Your task to perform on an android device: toggle javascript in the chrome app Image 0: 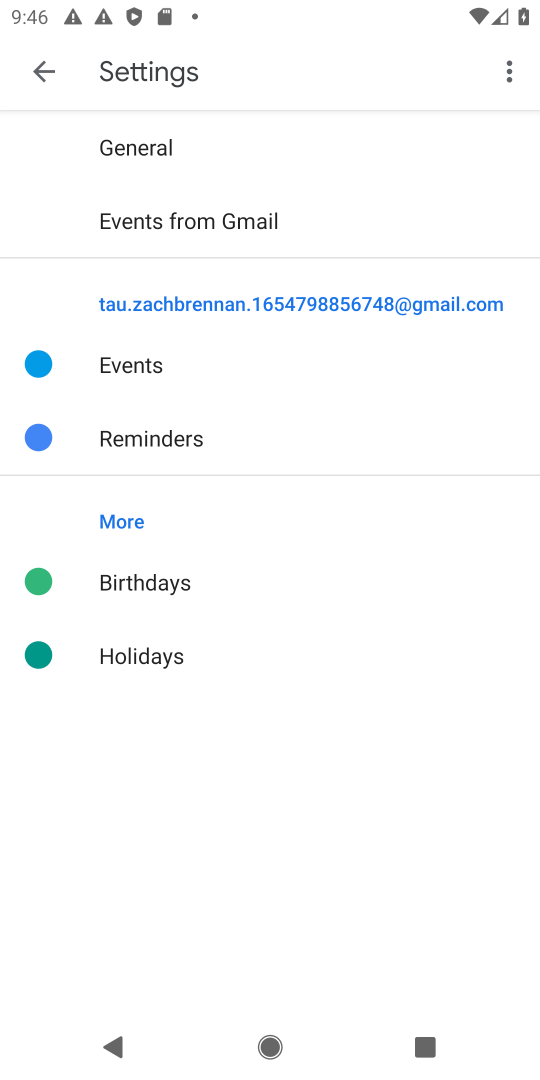
Step 0: press home button
Your task to perform on an android device: toggle javascript in the chrome app Image 1: 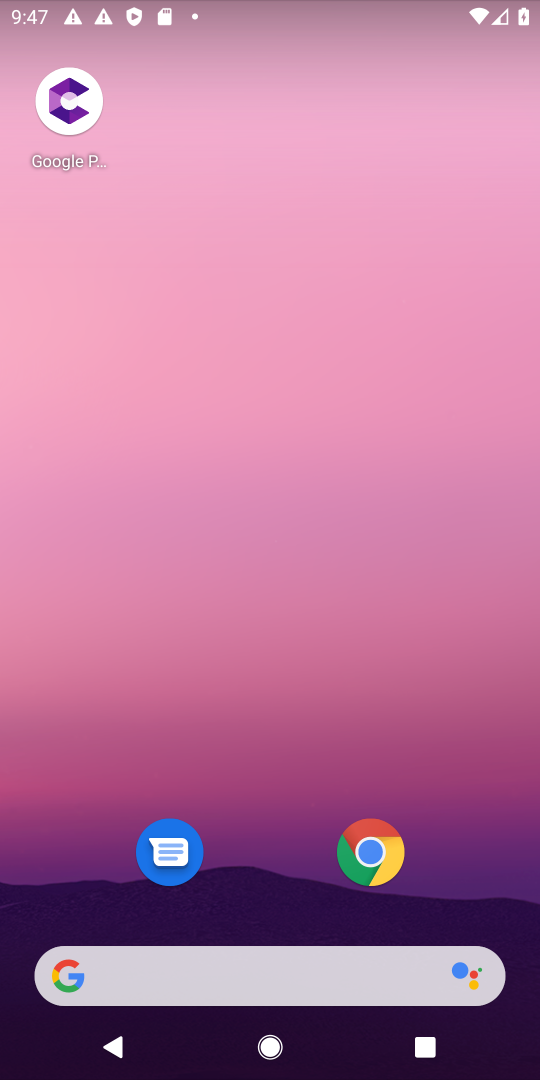
Step 1: click (384, 860)
Your task to perform on an android device: toggle javascript in the chrome app Image 2: 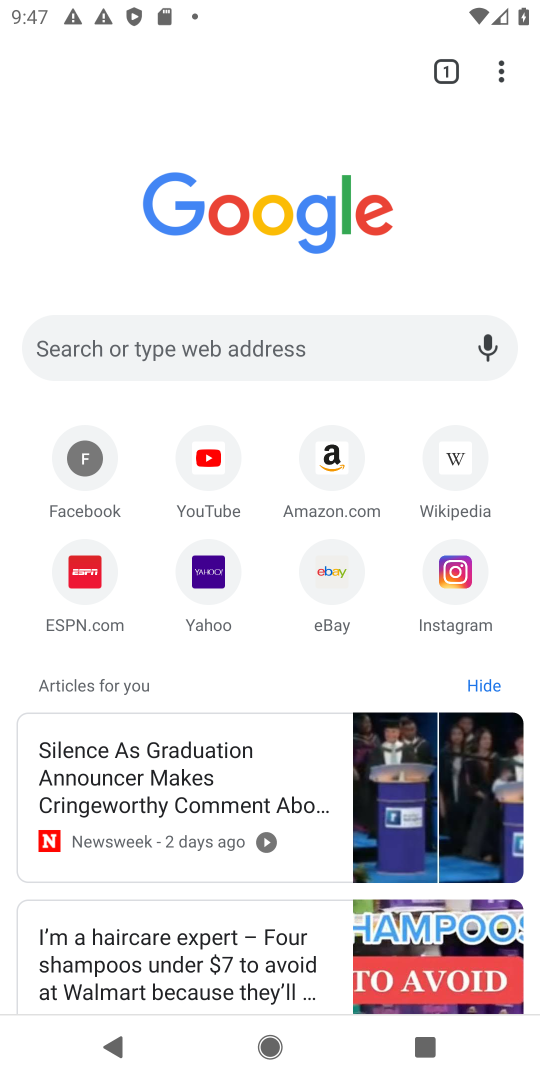
Step 2: click (507, 69)
Your task to perform on an android device: toggle javascript in the chrome app Image 3: 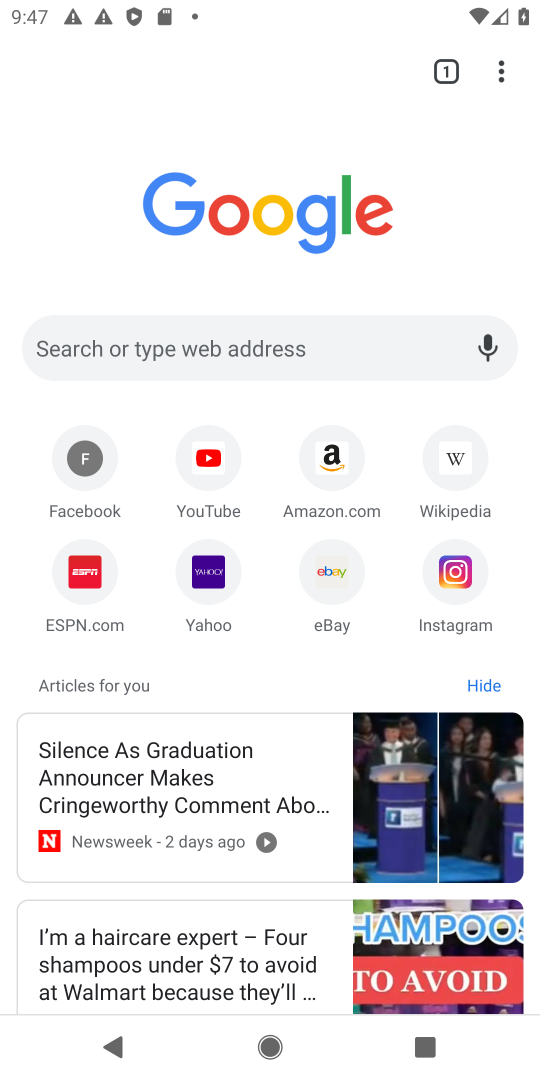
Step 3: click (496, 68)
Your task to perform on an android device: toggle javascript in the chrome app Image 4: 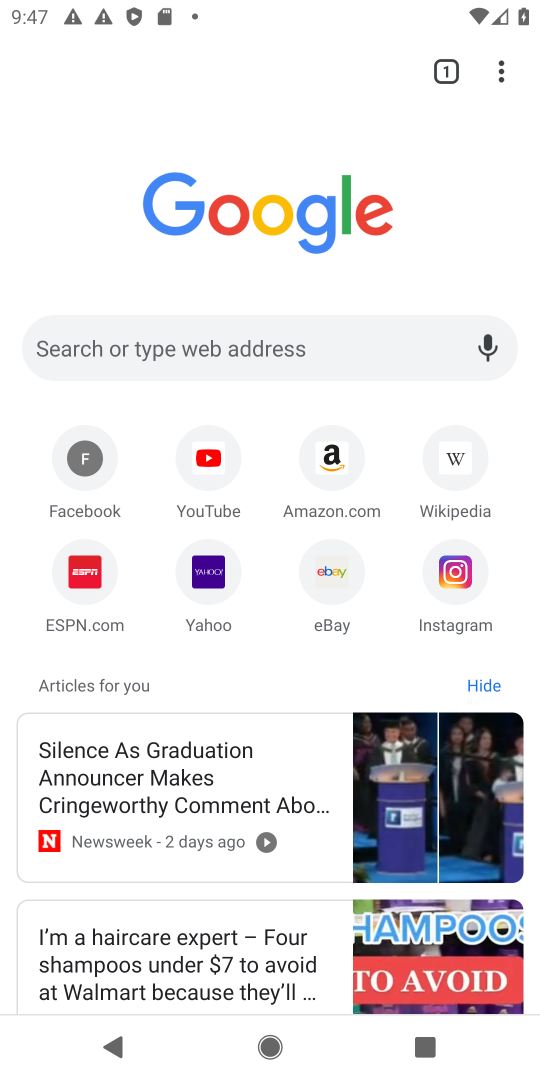
Step 4: click (504, 57)
Your task to perform on an android device: toggle javascript in the chrome app Image 5: 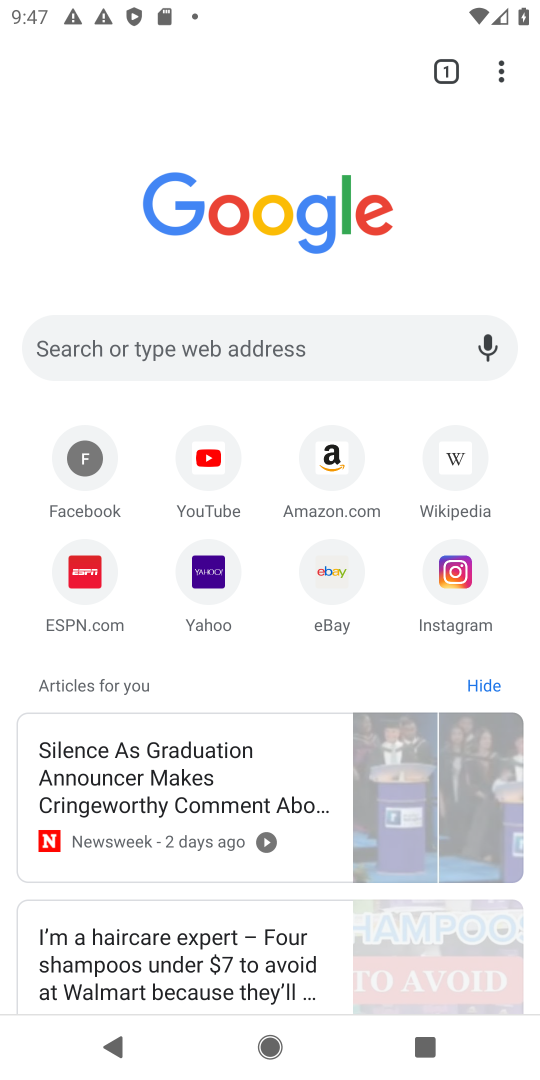
Step 5: click (504, 74)
Your task to perform on an android device: toggle javascript in the chrome app Image 6: 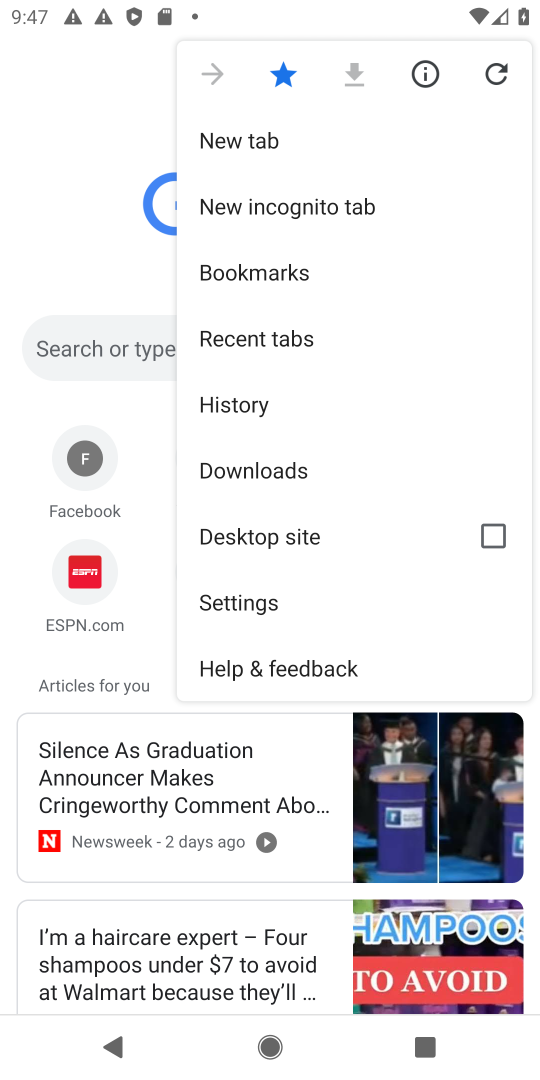
Step 6: click (249, 597)
Your task to perform on an android device: toggle javascript in the chrome app Image 7: 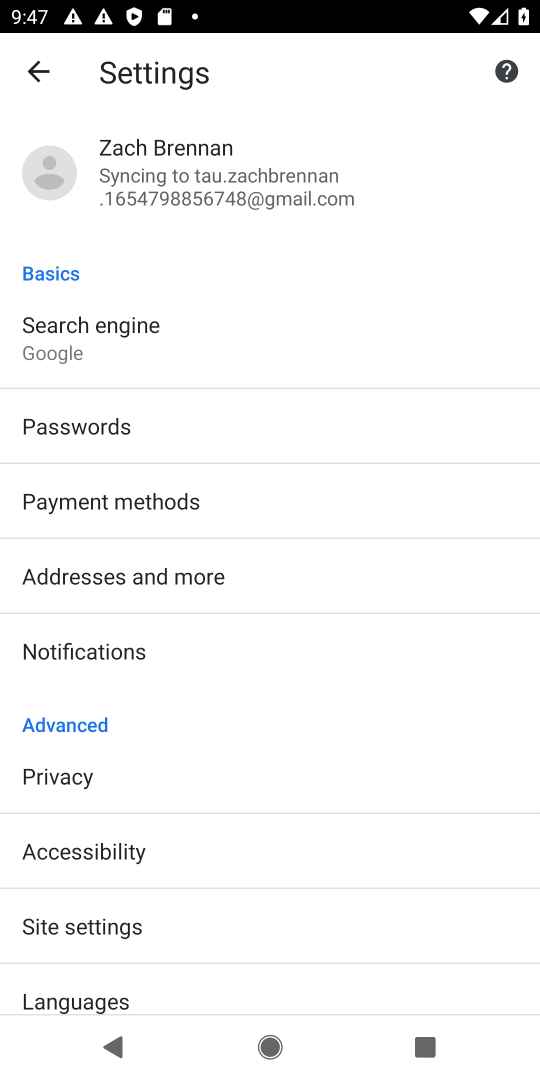
Step 7: drag from (239, 894) to (326, 393)
Your task to perform on an android device: toggle javascript in the chrome app Image 8: 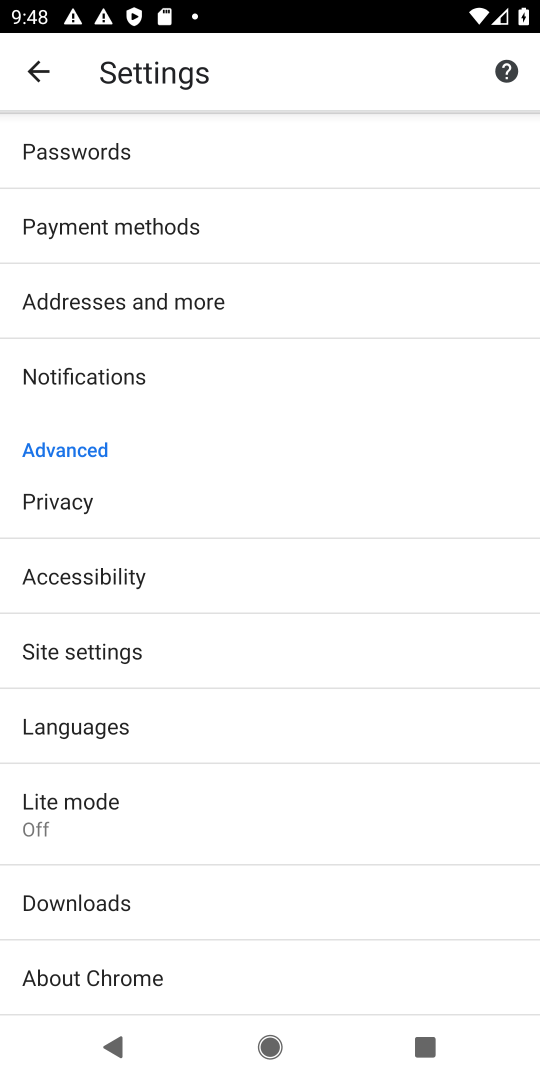
Step 8: drag from (162, 875) to (238, 565)
Your task to perform on an android device: toggle javascript in the chrome app Image 9: 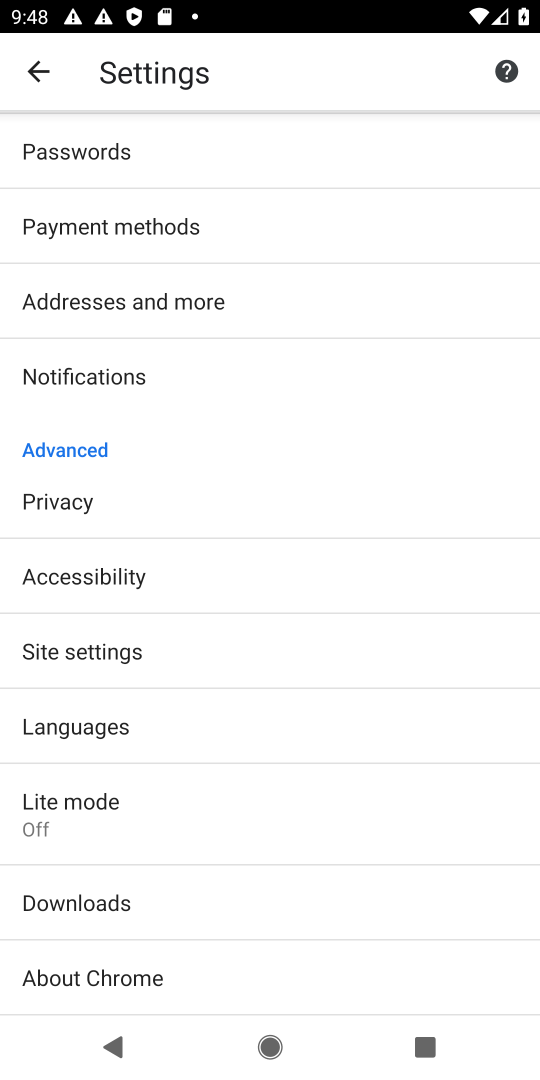
Step 9: click (117, 670)
Your task to perform on an android device: toggle javascript in the chrome app Image 10: 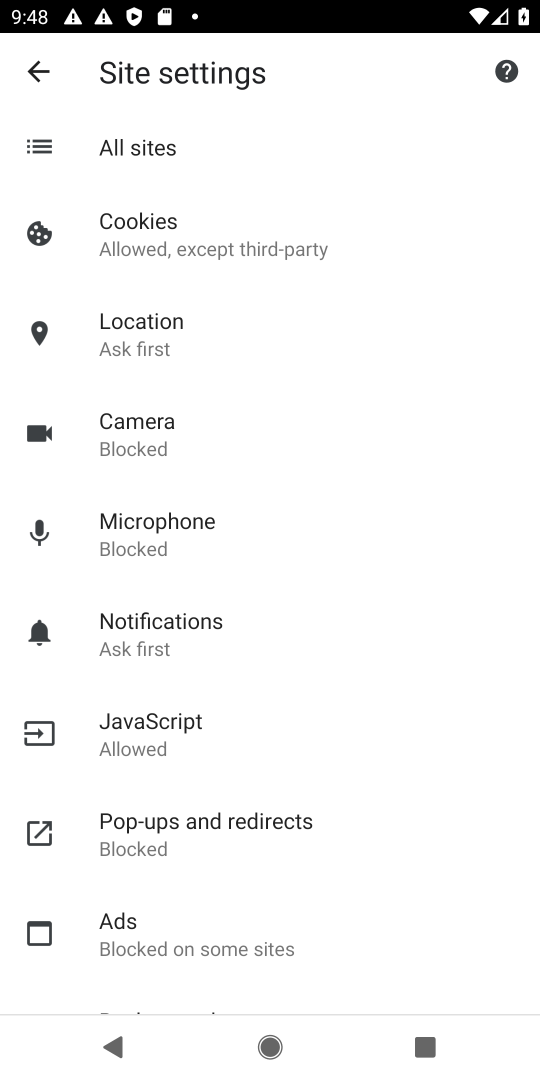
Step 10: click (168, 720)
Your task to perform on an android device: toggle javascript in the chrome app Image 11: 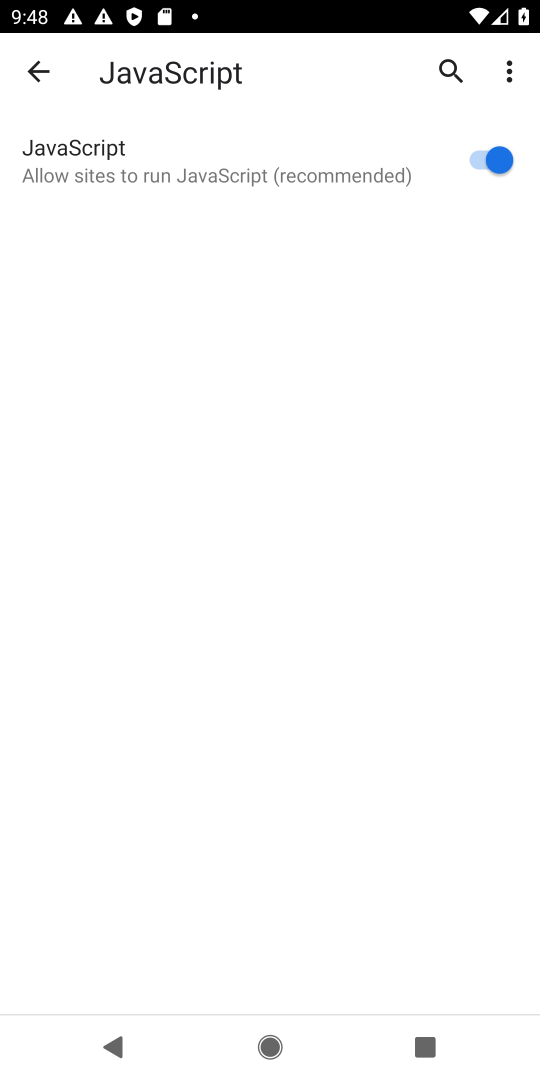
Step 11: click (477, 135)
Your task to perform on an android device: toggle javascript in the chrome app Image 12: 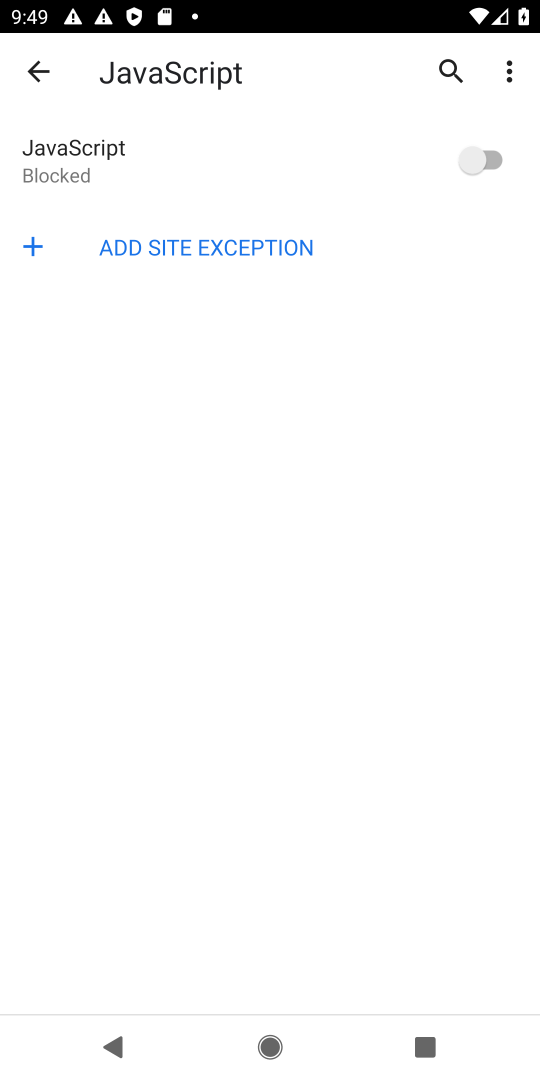
Step 12: task complete